Your task to perform on an android device: change keyboard looks Image 0: 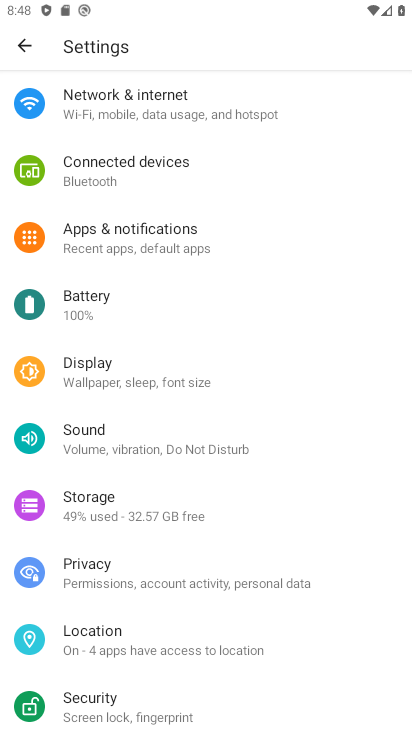
Step 0: press home button
Your task to perform on an android device: change keyboard looks Image 1: 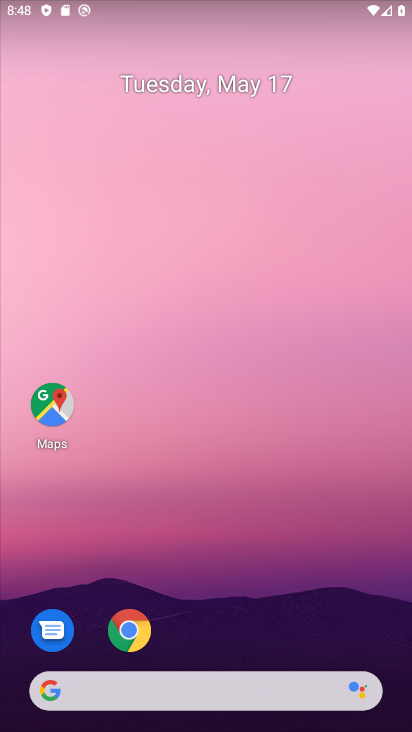
Step 1: drag from (331, 561) to (332, 227)
Your task to perform on an android device: change keyboard looks Image 2: 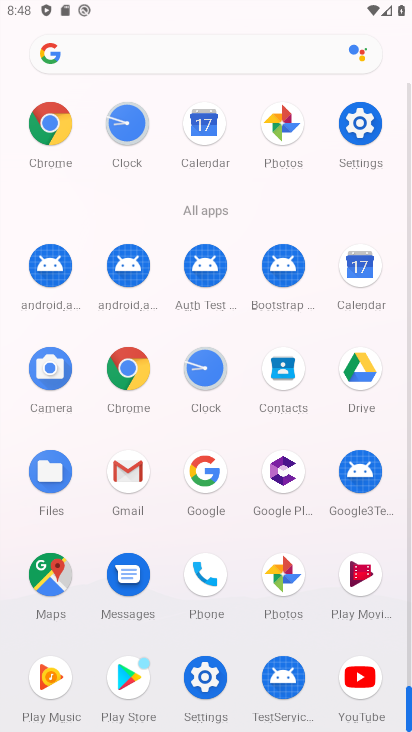
Step 2: click (369, 132)
Your task to perform on an android device: change keyboard looks Image 3: 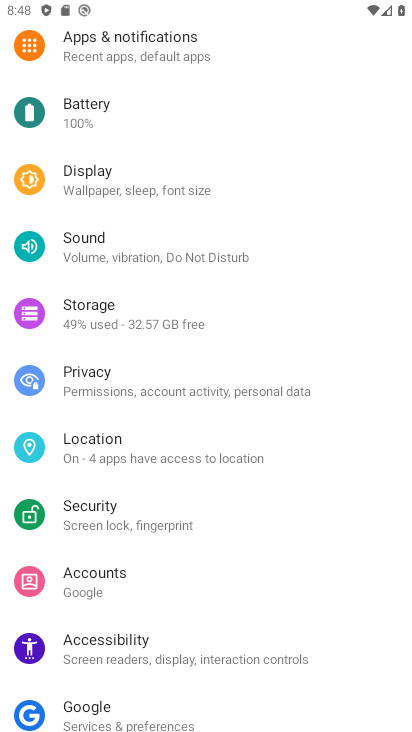
Step 3: drag from (353, 528) to (361, 354)
Your task to perform on an android device: change keyboard looks Image 4: 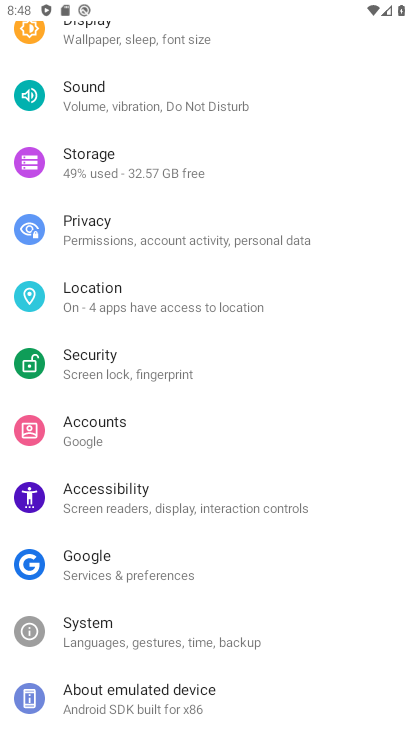
Step 4: drag from (334, 629) to (341, 450)
Your task to perform on an android device: change keyboard looks Image 5: 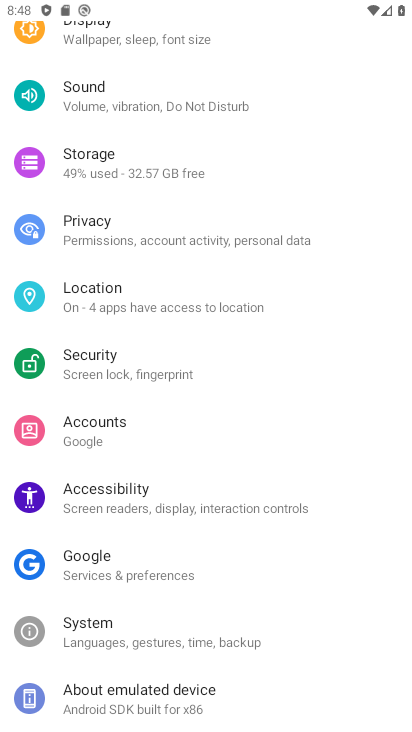
Step 5: click (173, 647)
Your task to perform on an android device: change keyboard looks Image 6: 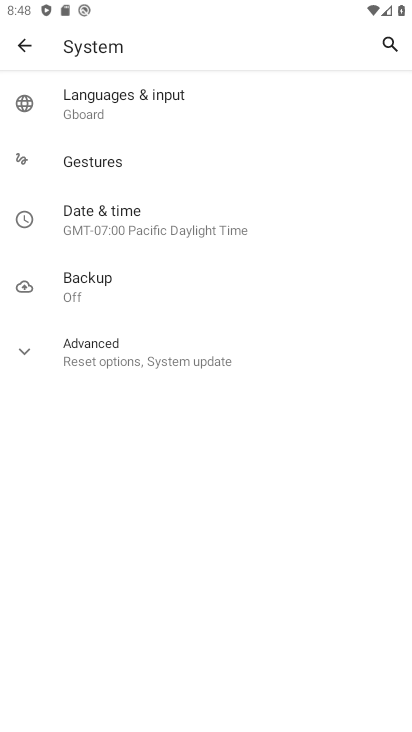
Step 6: drag from (329, 591) to (345, 308)
Your task to perform on an android device: change keyboard looks Image 7: 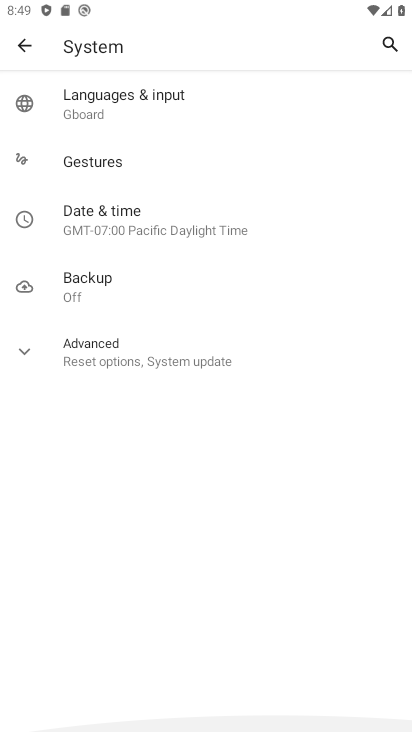
Step 7: drag from (362, 163) to (331, 500)
Your task to perform on an android device: change keyboard looks Image 8: 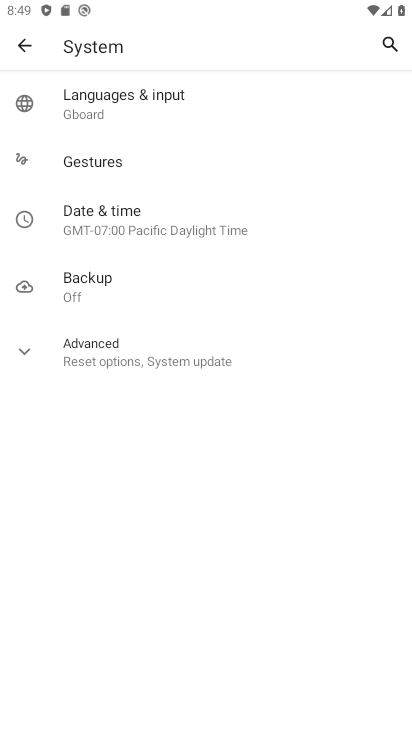
Step 8: click (147, 101)
Your task to perform on an android device: change keyboard looks Image 9: 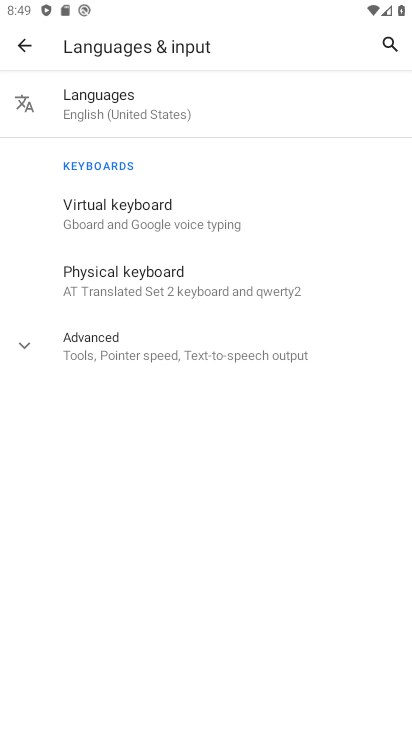
Step 9: click (146, 210)
Your task to perform on an android device: change keyboard looks Image 10: 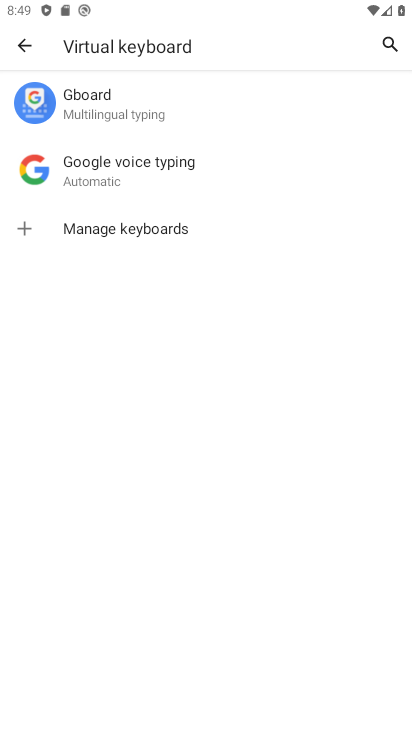
Step 10: click (108, 103)
Your task to perform on an android device: change keyboard looks Image 11: 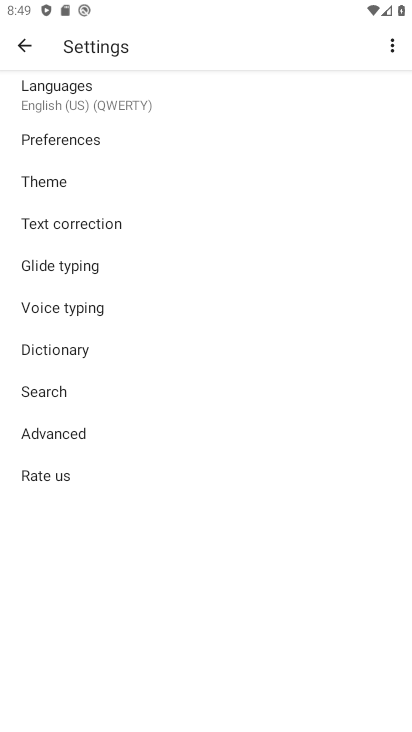
Step 11: click (57, 179)
Your task to perform on an android device: change keyboard looks Image 12: 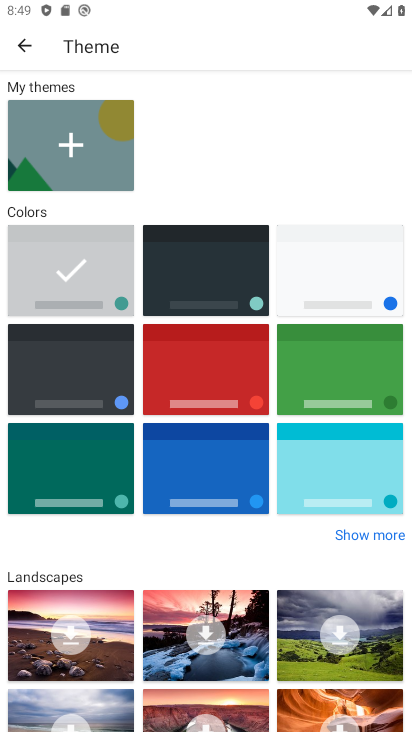
Step 12: click (178, 365)
Your task to perform on an android device: change keyboard looks Image 13: 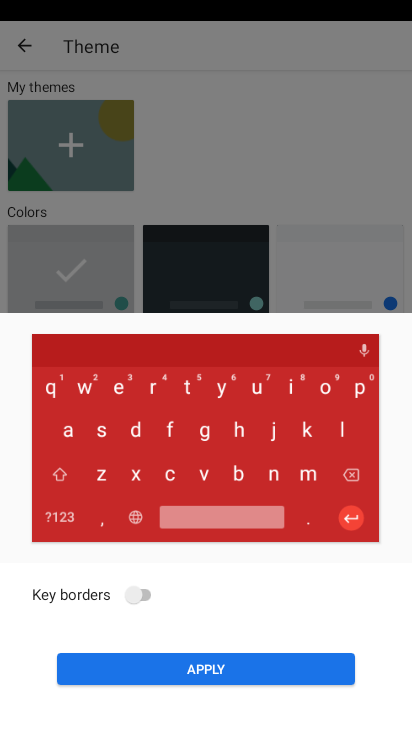
Step 13: click (249, 675)
Your task to perform on an android device: change keyboard looks Image 14: 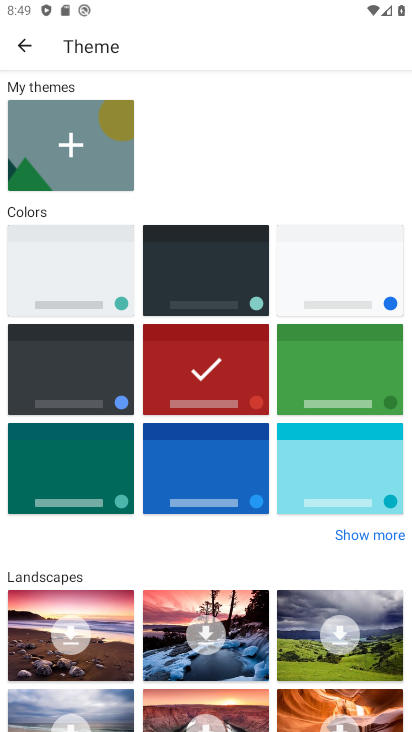
Step 14: task complete